Your task to perform on an android device: Open Reddit.com Image 0: 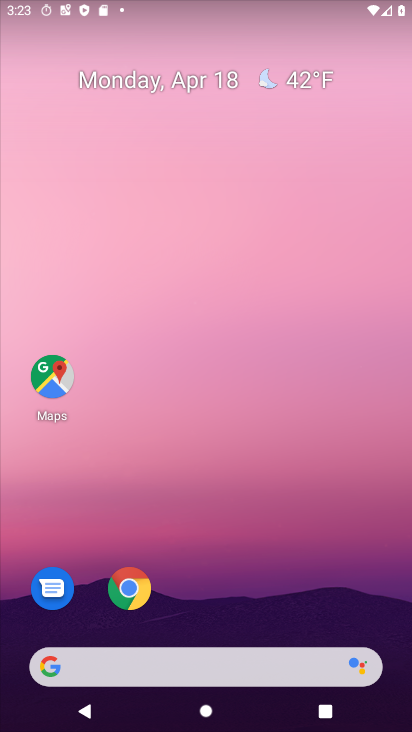
Step 0: click (148, 589)
Your task to perform on an android device: Open Reddit.com Image 1: 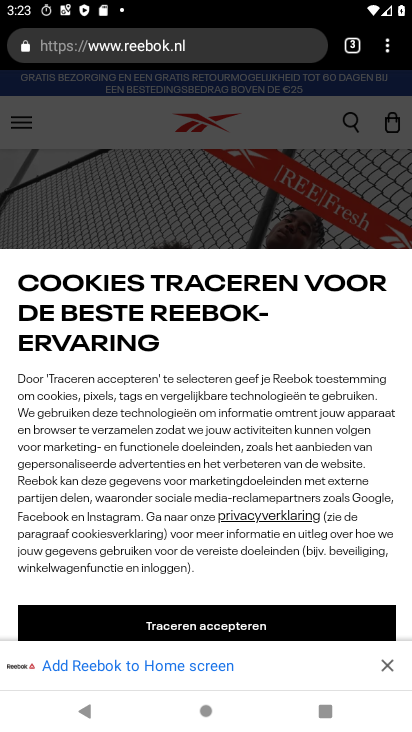
Step 1: click (251, 42)
Your task to perform on an android device: Open Reddit.com Image 2: 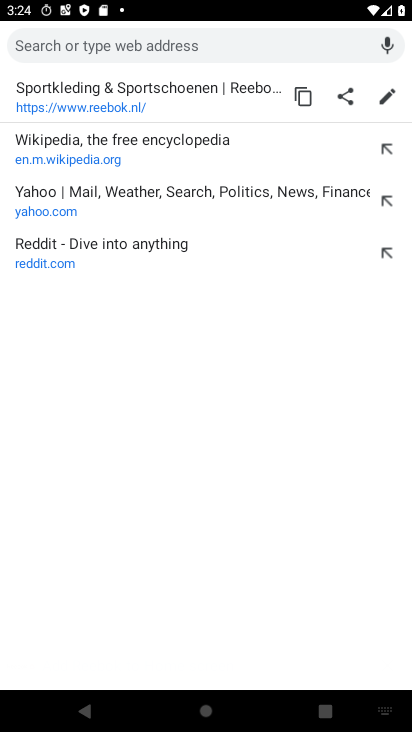
Step 2: type "reddit.com"
Your task to perform on an android device: Open Reddit.com Image 3: 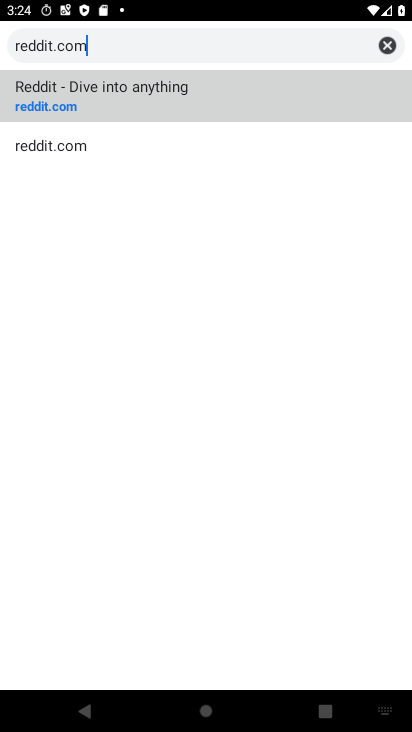
Step 3: click (277, 152)
Your task to perform on an android device: Open Reddit.com Image 4: 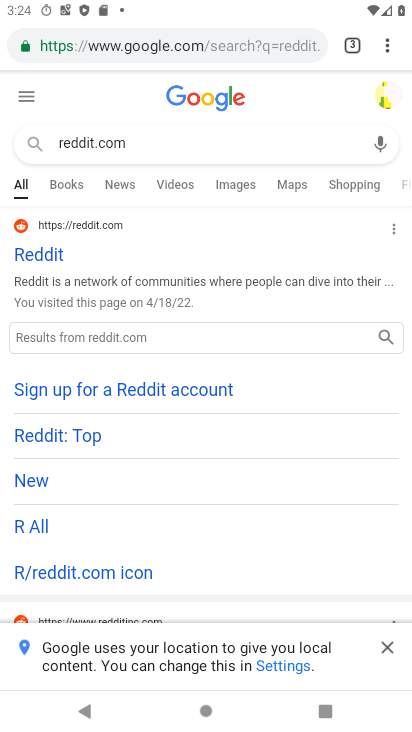
Step 4: click (49, 254)
Your task to perform on an android device: Open Reddit.com Image 5: 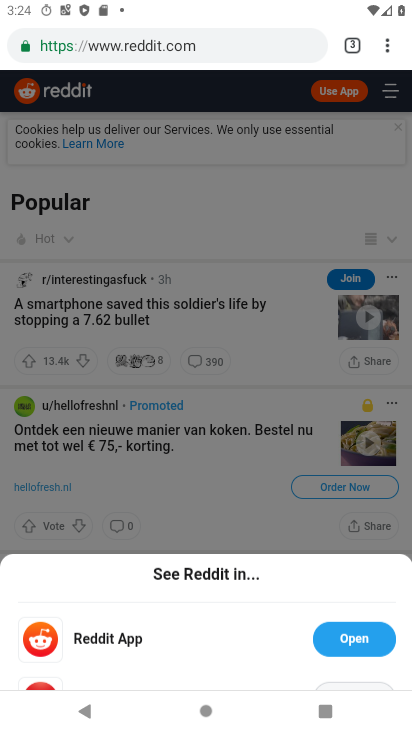
Step 5: task complete